Your task to perform on an android device: toggle translation in the chrome app Image 0: 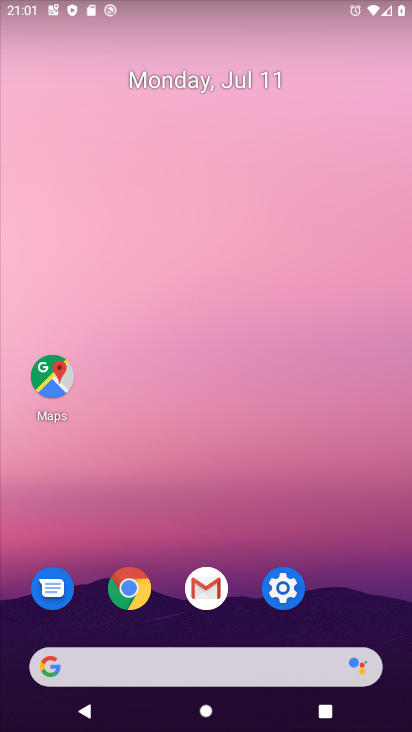
Step 0: drag from (286, 689) to (311, 188)
Your task to perform on an android device: toggle translation in the chrome app Image 1: 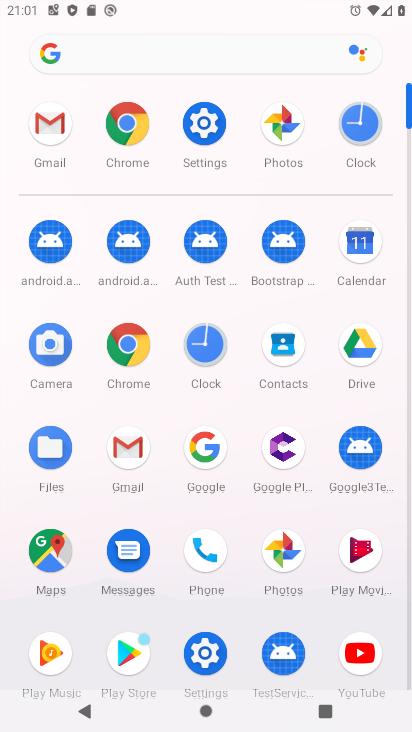
Step 1: click (125, 133)
Your task to perform on an android device: toggle translation in the chrome app Image 2: 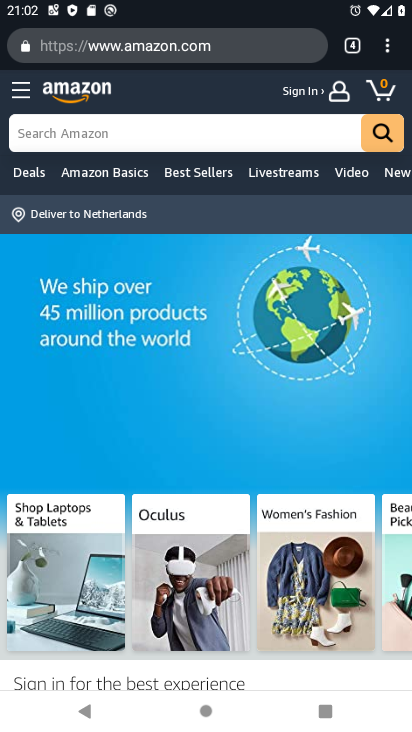
Step 2: click (386, 50)
Your task to perform on an android device: toggle translation in the chrome app Image 3: 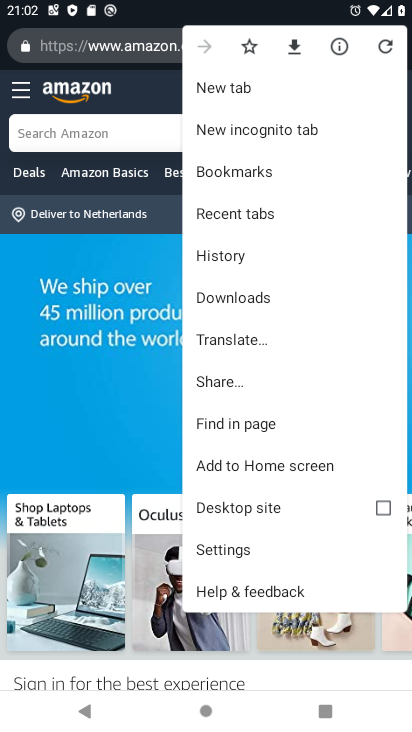
Step 3: click (218, 549)
Your task to perform on an android device: toggle translation in the chrome app Image 4: 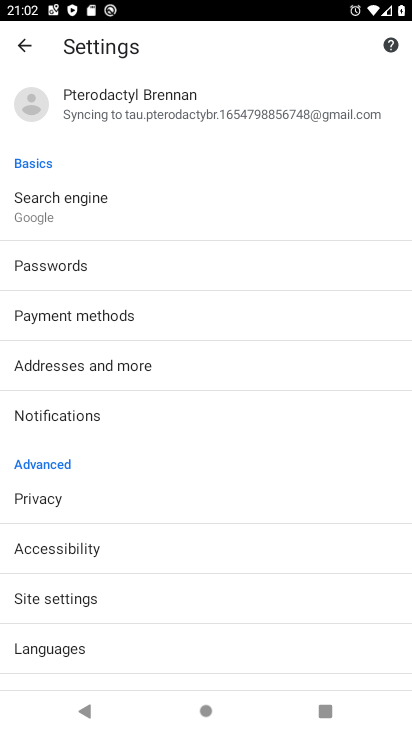
Step 4: click (69, 640)
Your task to perform on an android device: toggle translation in the chrome app Image 5: 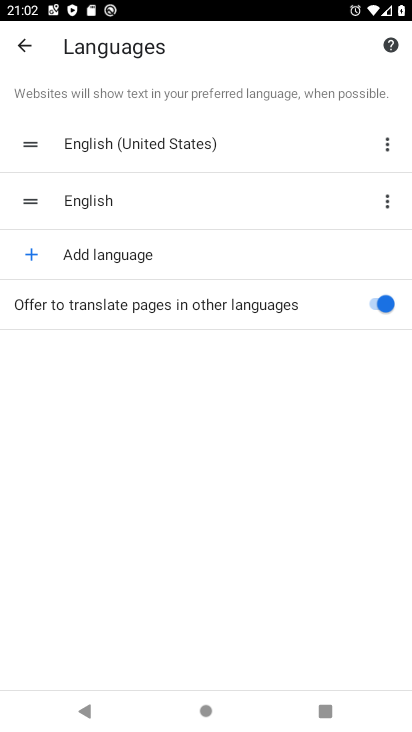
Step 5: click (369, 304)
Your task to perform on an android device: toggle translation in the chrome app Image 6: 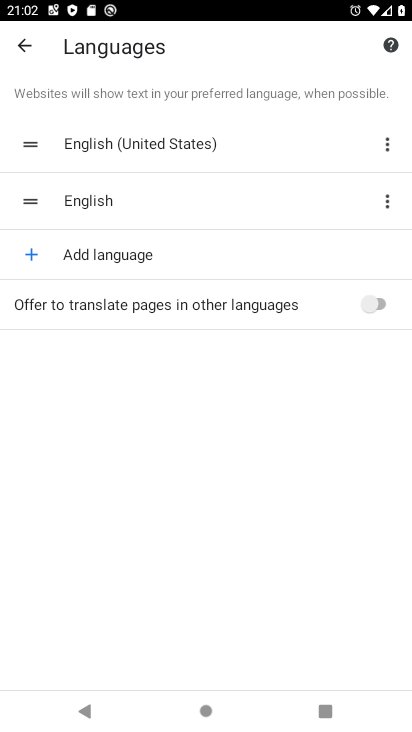
Step 6: click (369, 304)
Your task to perform on an android device: toggle translation in the chrome app Image 7: 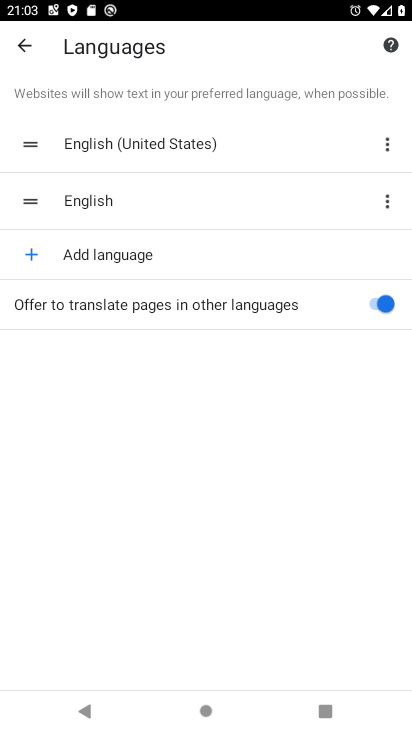
Step 7: task complete